Your task to perform on an android device: Go to Android settings Image 0: 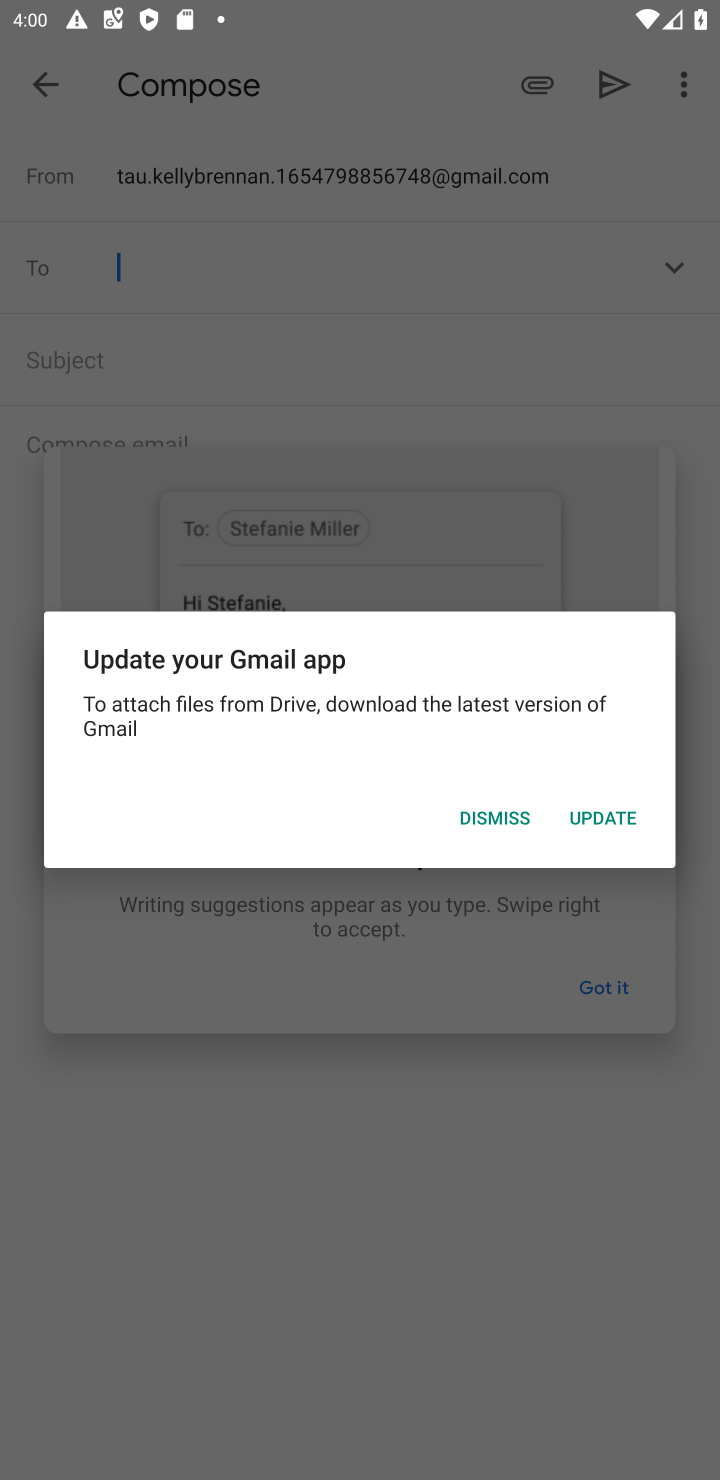
Step 0: press home button
Your task to perform on an android device: Go to Android settings Image 1: 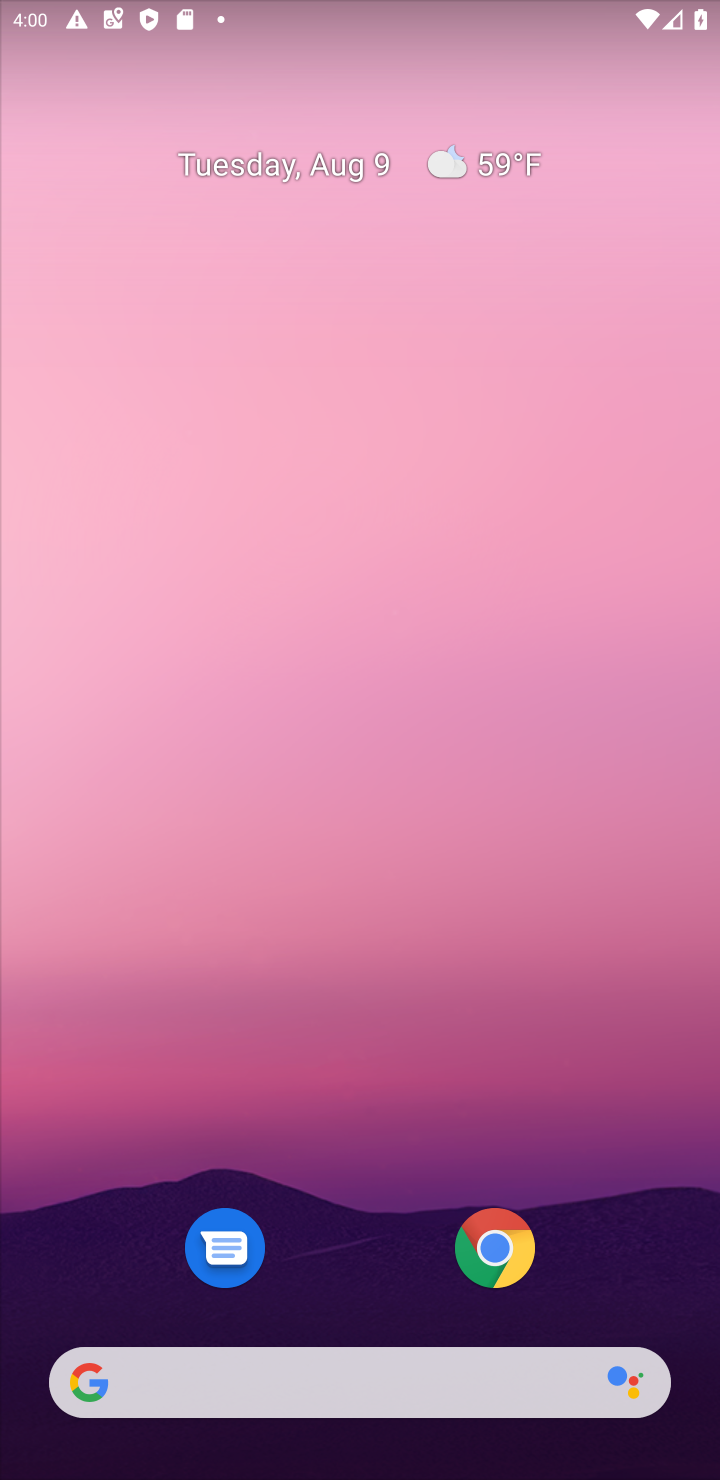
Step 1: drag from (579, 1143) to (515, 363)
Your task to perform on an android device: Go to Android settings Image 2: 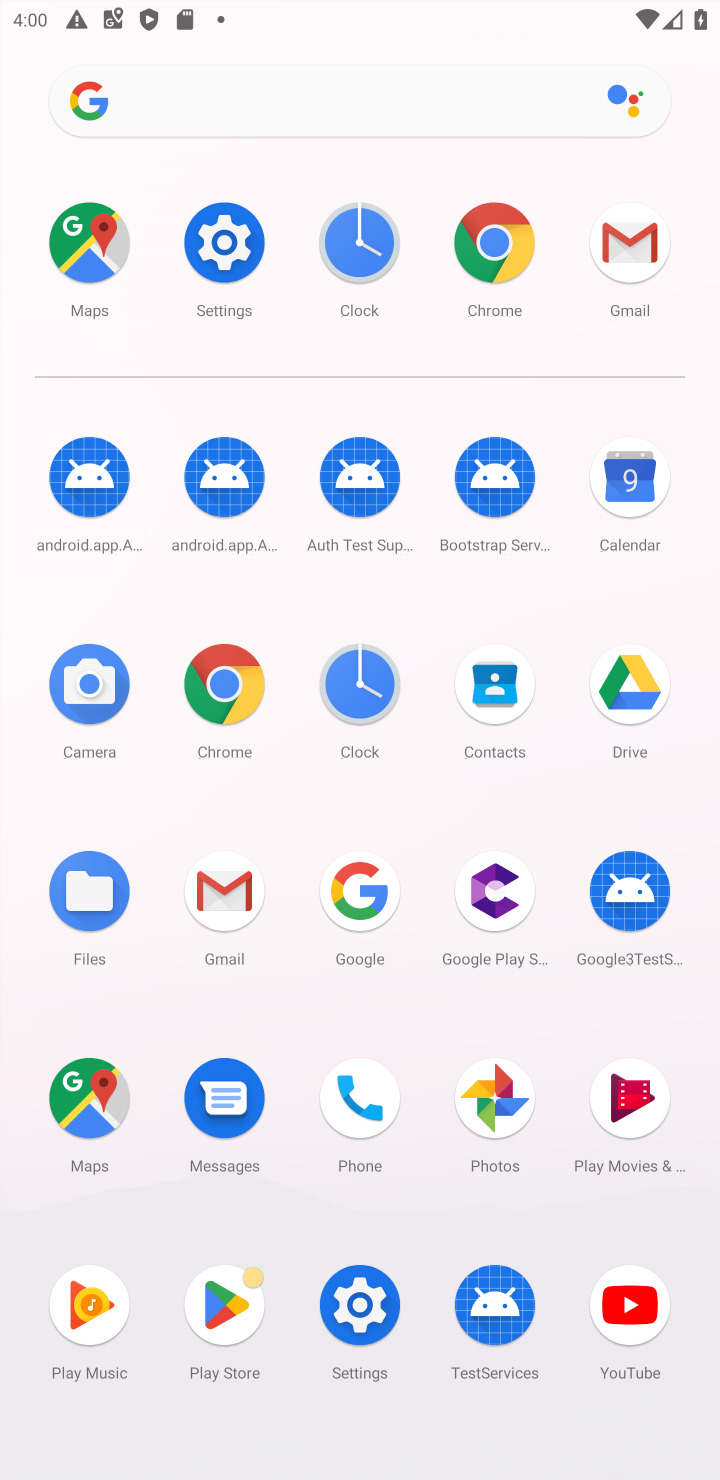
Step 2: click (339, 1302)
Your task to perform on an android device: Go to Android settings Image 3: 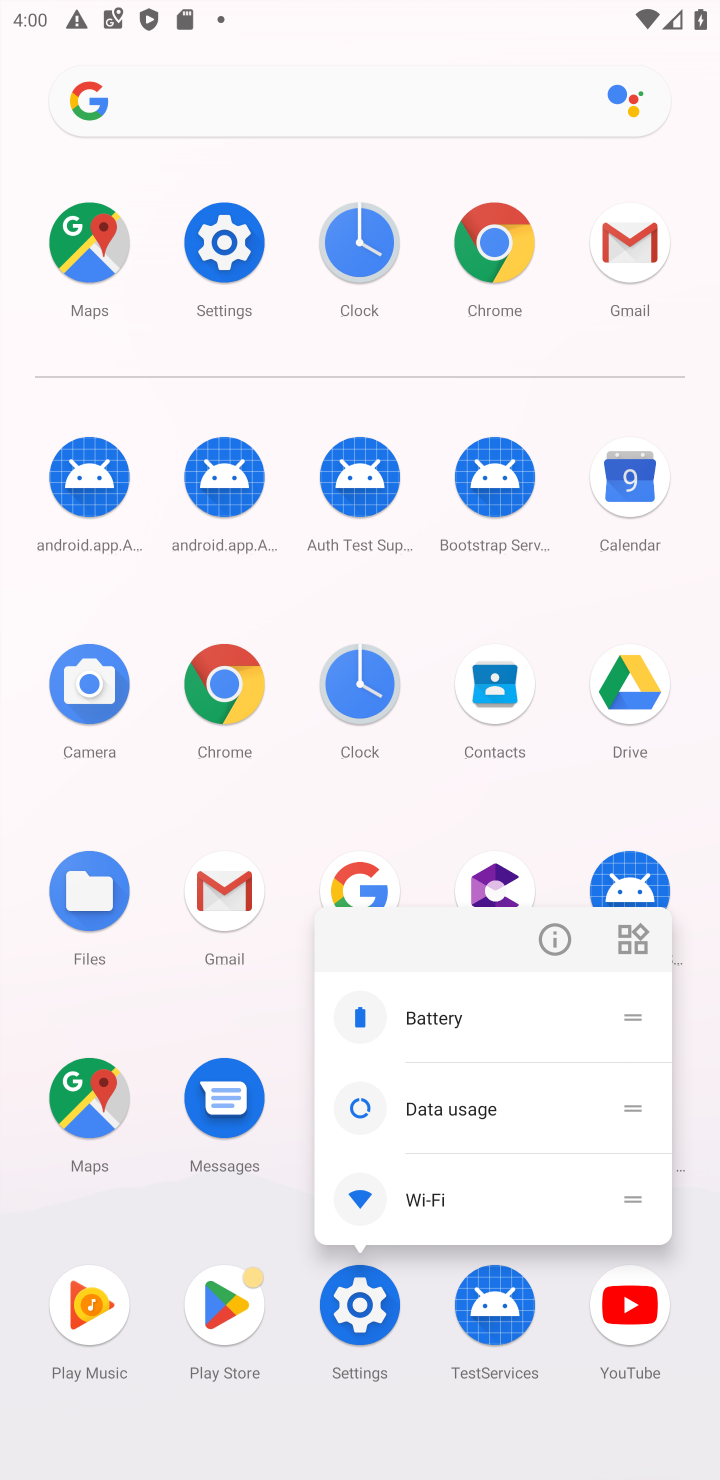
Step 3: click (362, 1307)
Your task to perform on an android device: Go to Android settings Image 4: 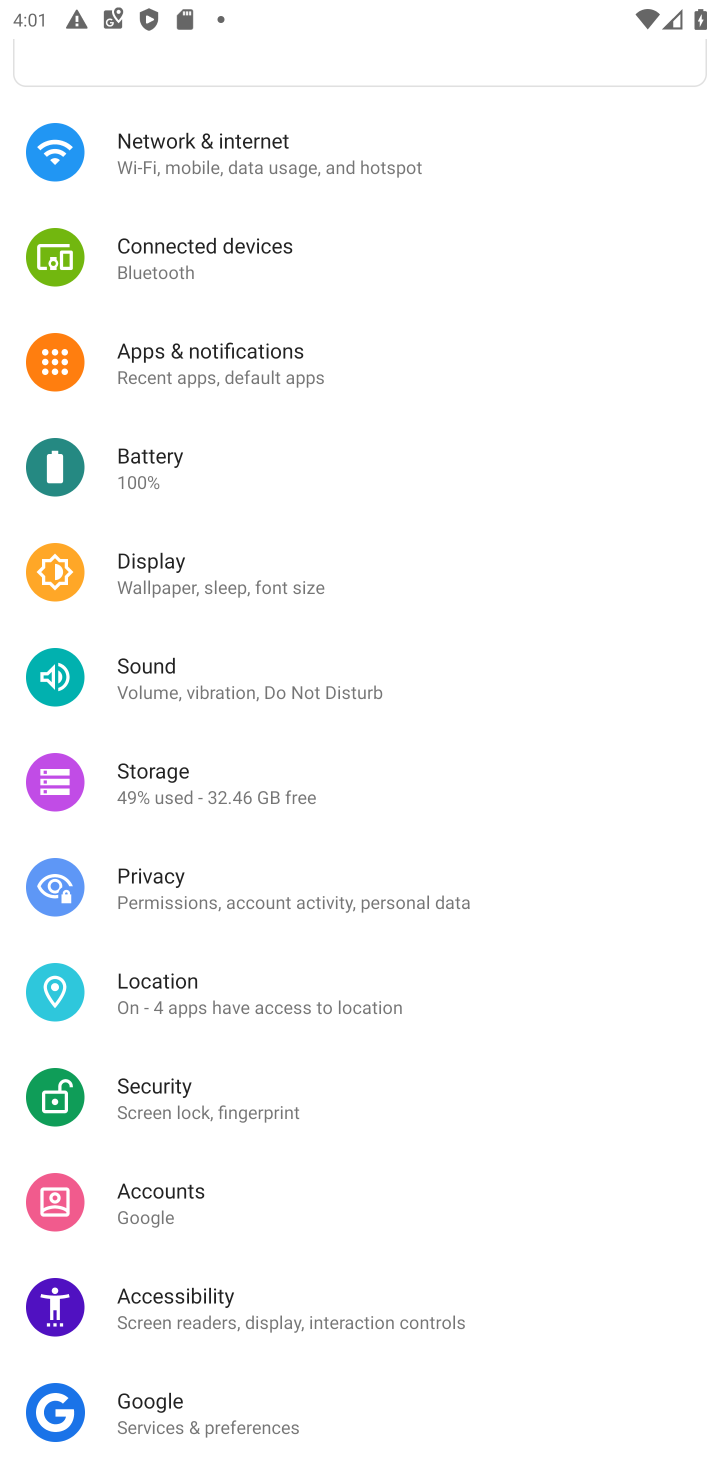
Step 4: task complete